Your task to perform on an android device: Open calendar and show me the second week of next month Image 0: 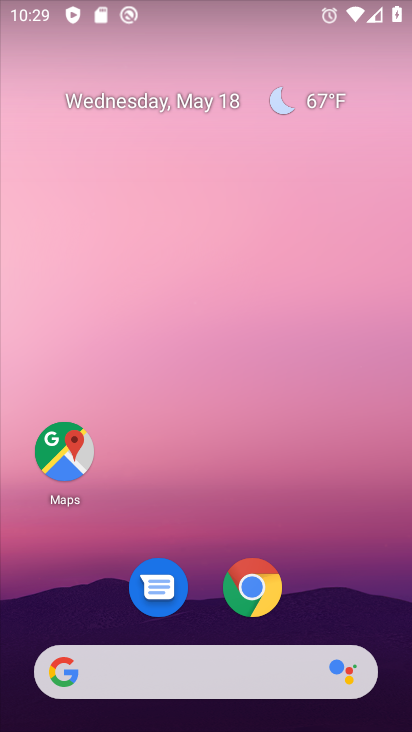
Step 0: drag from (374, 584) to (352, 190)
Your task to perform on an android device: Open calendar and show me the second week of next month Image 1: 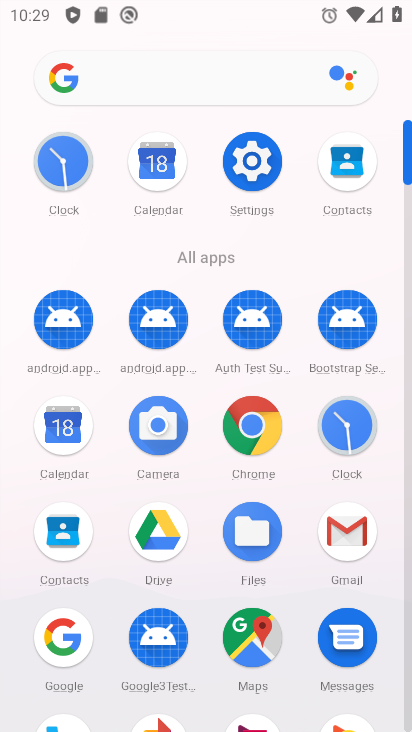
Step 1: click (168, 171)
Your task to perform on an android device: Open calendar and show me the second week of next month Image 2: 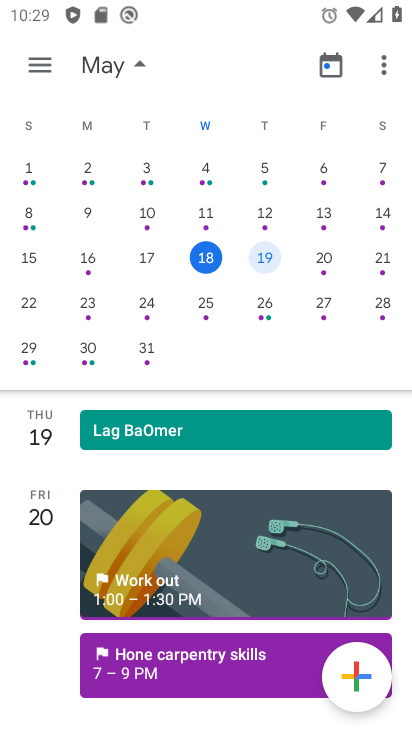
Step 2: task complete